Your task to perform on an android device: Open privacy settings Image 0: 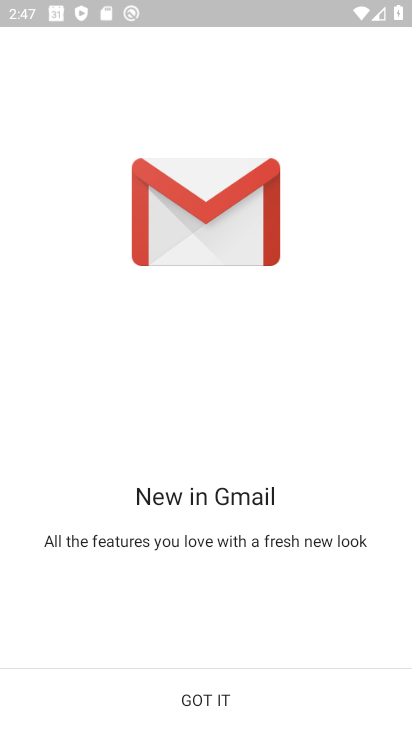
Step 0: press home button
Your task to perform on an android device: Open privacy settings Image 1: 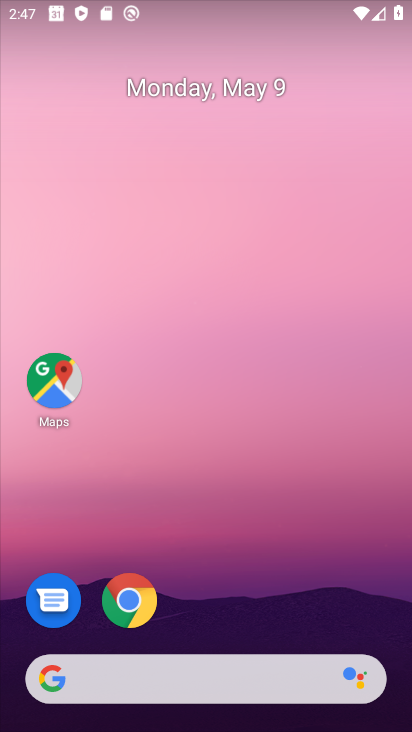
Step 1: drag from (225, 719) to (226, 303)
Your task to perform on an android device: Open privacy settings Image 2: 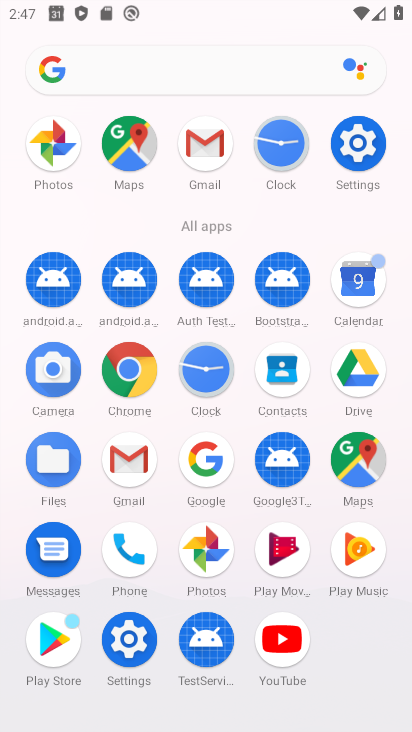
Step 2: click (353, 139)
Your task to perform on an android device: Open privacy settings Image 3: 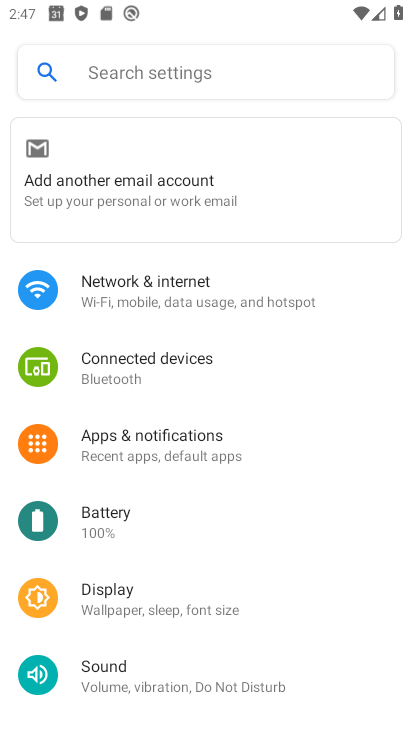
Step 3: drag from (160, 648) to (144, 439)
Your task to perform on an android device: Open privacy settings Image 4: 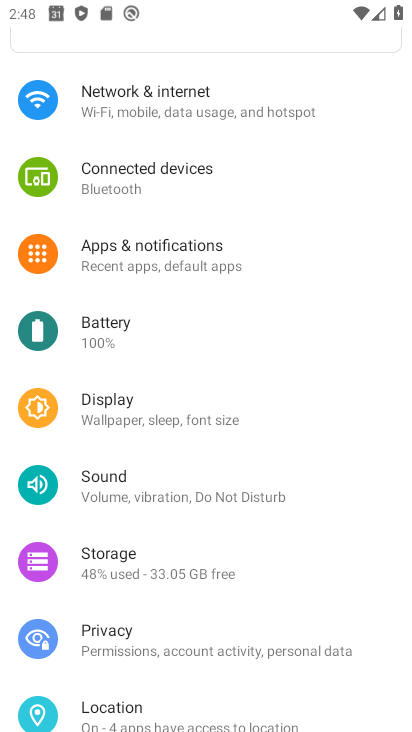
Step 4: click (120, 640)
Your task to perform on an android device: Open privacy settings Image 5: 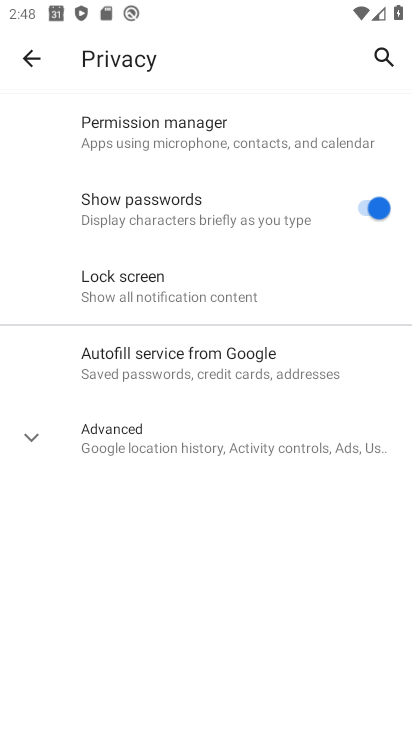
Step 5: task complete